Your task to perform on an android device: Is it going to rain today? Image 0: 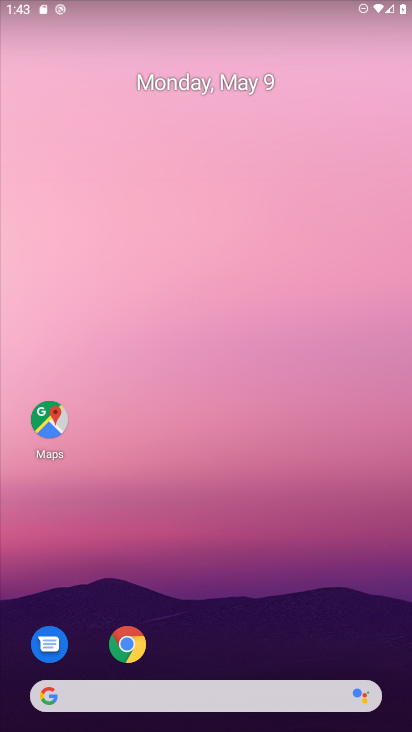
Step 0: drag from (305, 566) to (175, 19)
Your task to perform on an android device: Is it going to rain today? Image 1: 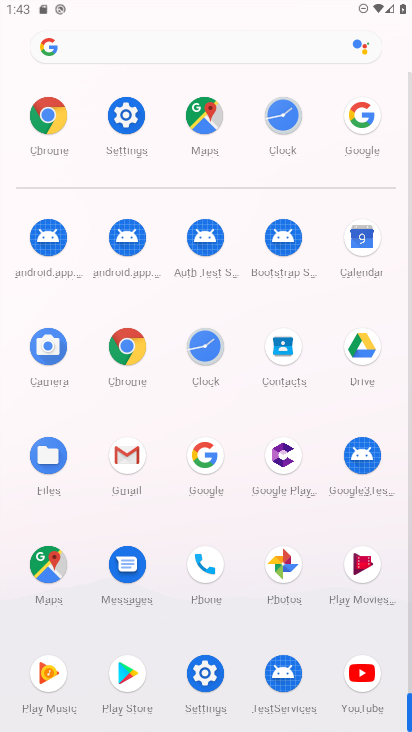
Step 1: click (198, 478)
Your task to perform on an android device: Is it going to rain today? Image 2: 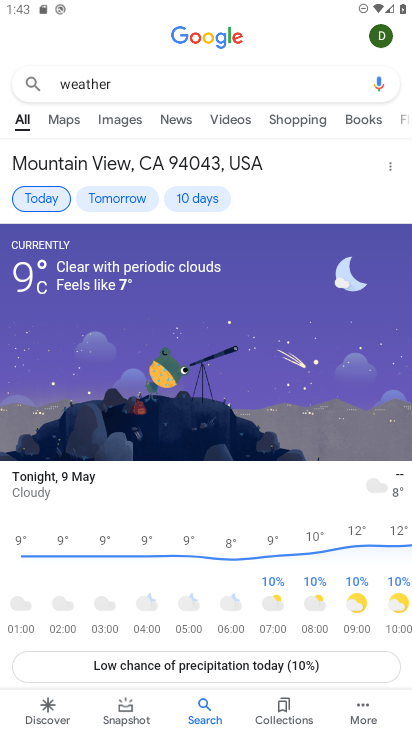
Step 2: task complete